Your task to perform on an android device: Open sound settings Image 0: 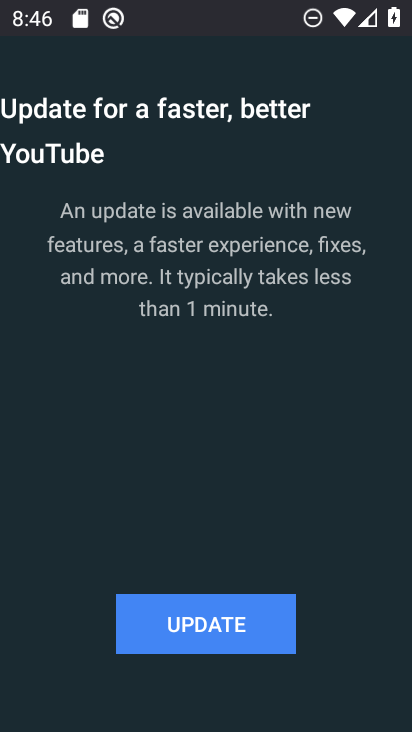
Step 0: press home button
Your task to perform on an android device: Open sound settings Image 1: 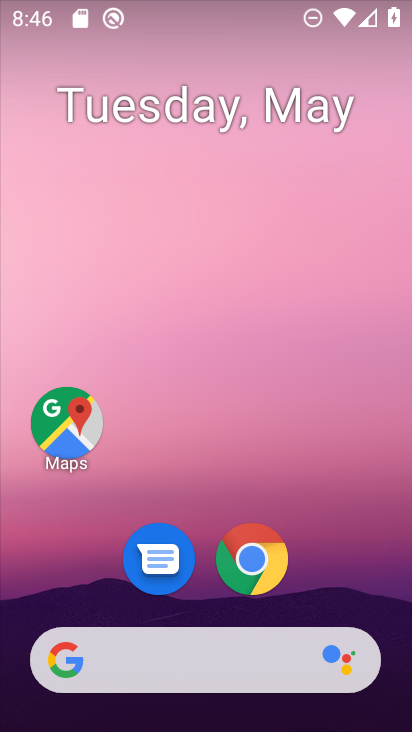
Step 1: drag from (200, 578) to (375, 13)
Your task to perform on an android device: Open sound settings Image 2: 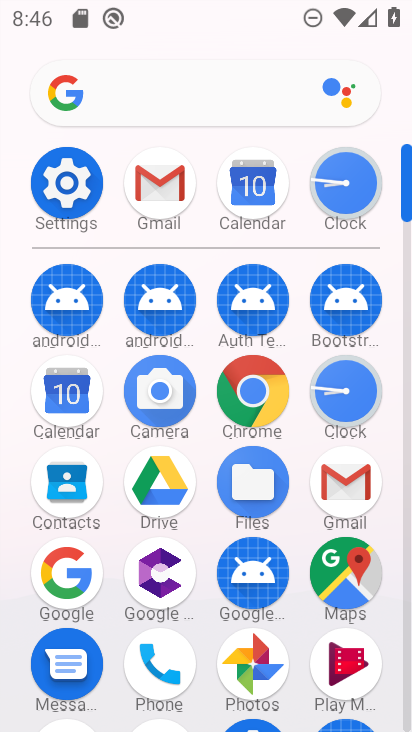
Step 2: click (88, 182)
Your task to perform on an android device: Open sound settings Image 3: 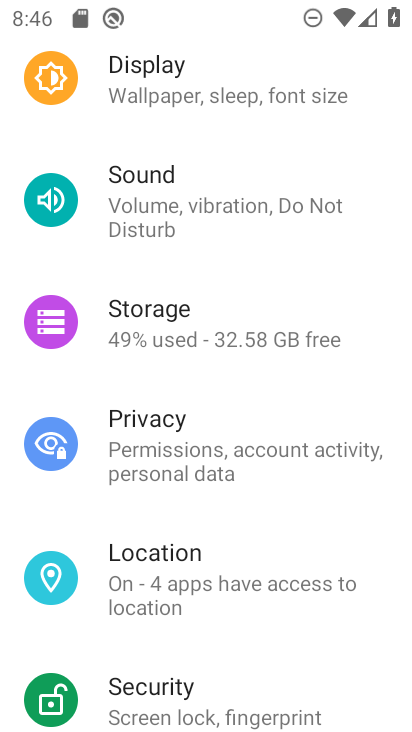
Step 3: click (166, 215)
Your task to perform on an android device: Open sound settings Image 4: 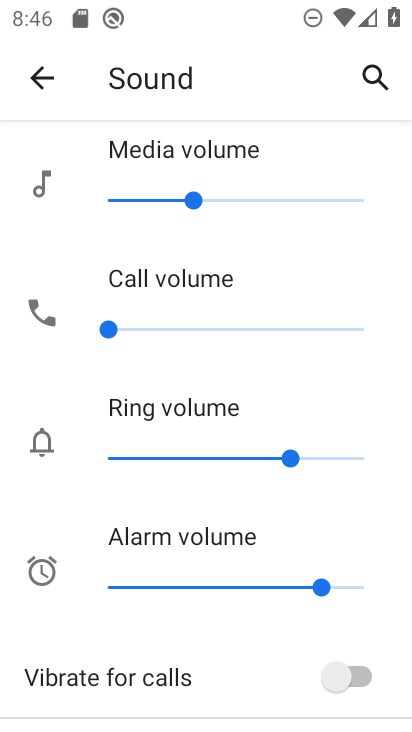
Step 4: task complete